Your task to perform on an android device: turn off wifi Image 0: 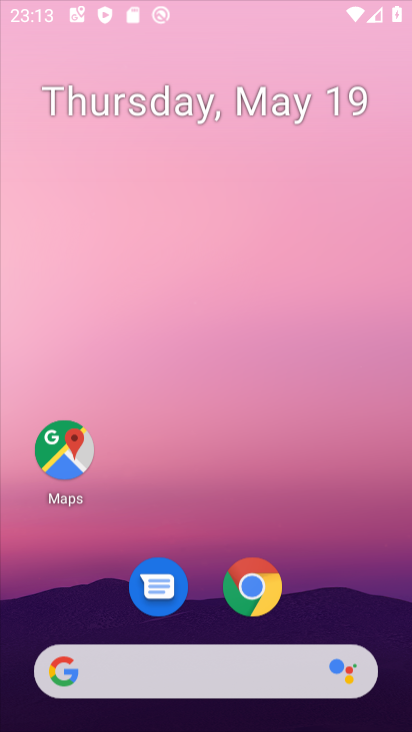
Step 0: press home button
Your task to perform on an android device: turn off wifi Image 1: 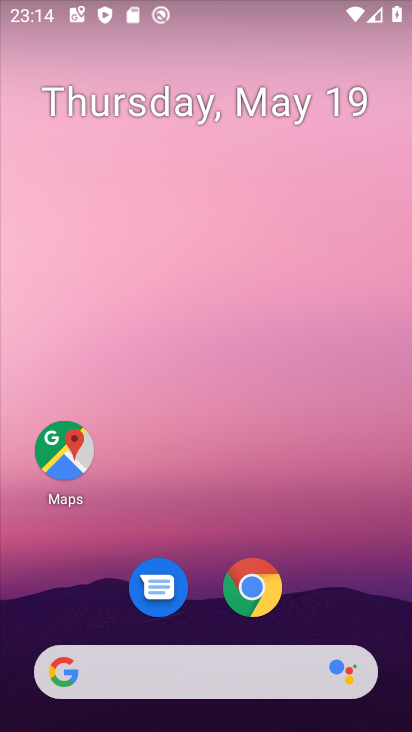
Step 1: drag from (271, 709) to (181, 321)
Your task to perform on an android device: turn off wifi Image 2: 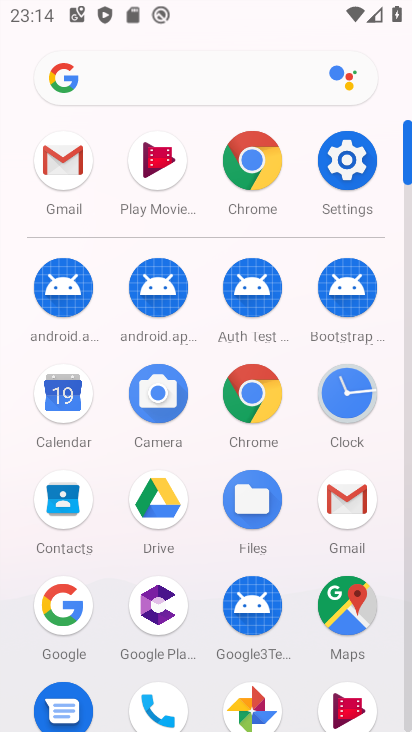
Step 2: click (337, 163)
Your task to perform on an android device: turn off wifi Image 3: 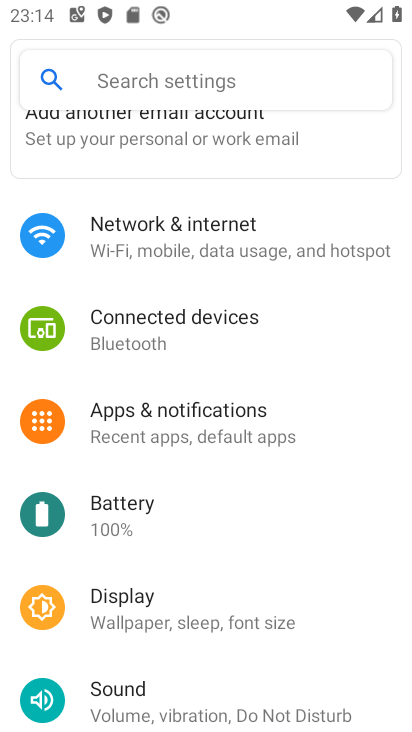
Step 3: click (196, 228)
Your task to perform on an android device: turn off wifi Image 4: 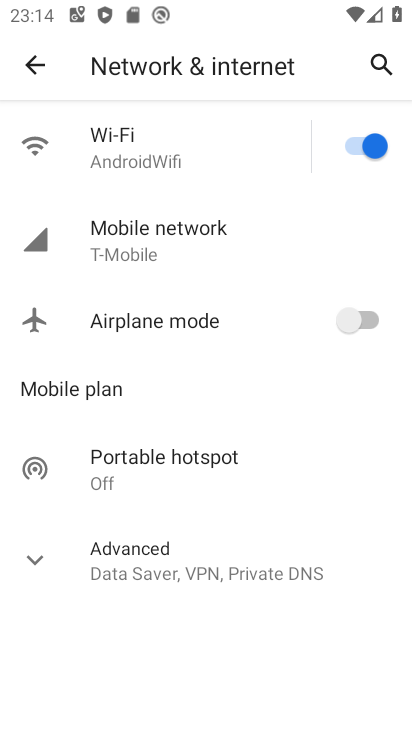
Step 4: click (176, 140)
Your task to perform on an android device: turn off wifi Image 5: 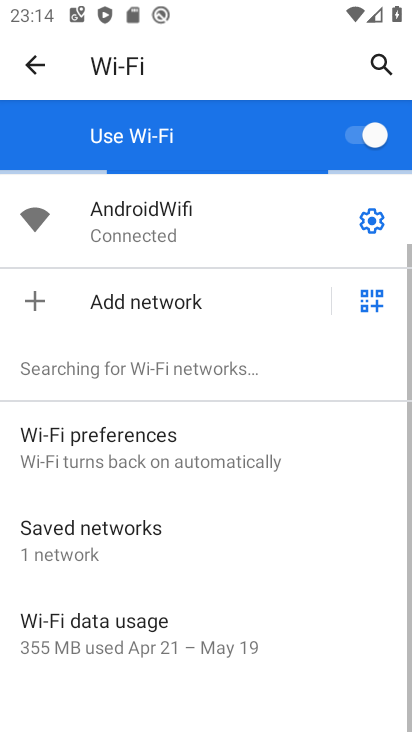
Step 5: click (358, 143)
Your task to perform on an android device: turn off wifi Image 6: 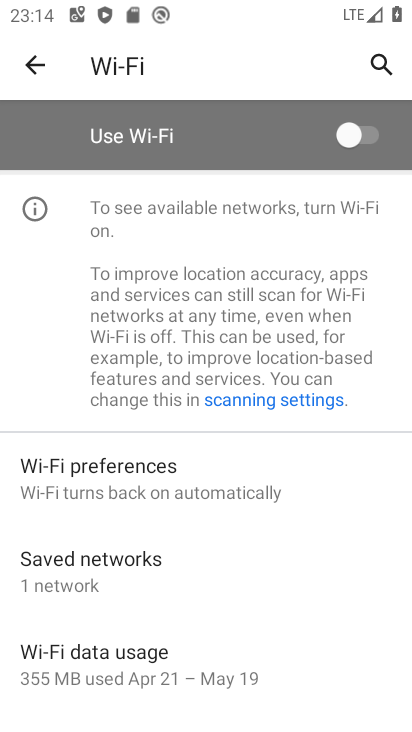
Step 6: task complete